Your task to perform on an android device: open chrome and create a bookmark for the current page Image 0: 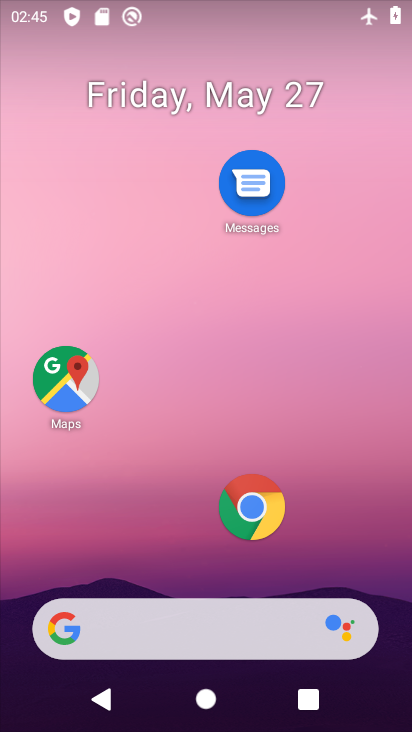
Step 0: drag from (186, 528) to (184, 201)
Your task to perform on an android device: open chrome and create a bookmark for the current page Image 1: 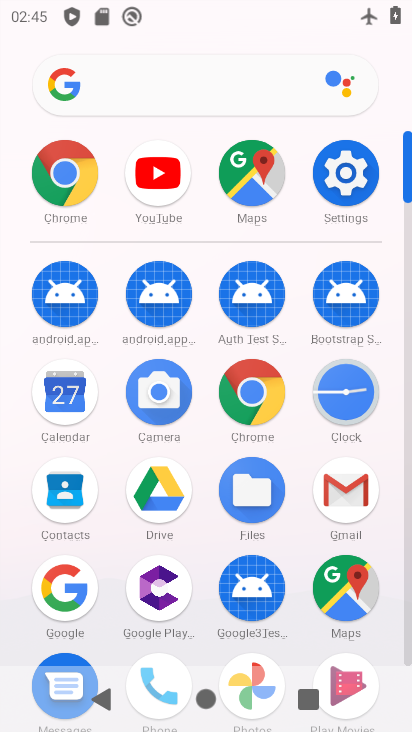
Step 1: drag from (206, 552) to (191, 78)
Your task to perform on an android device: open chrome and create a bookmark for the current page Image 2: 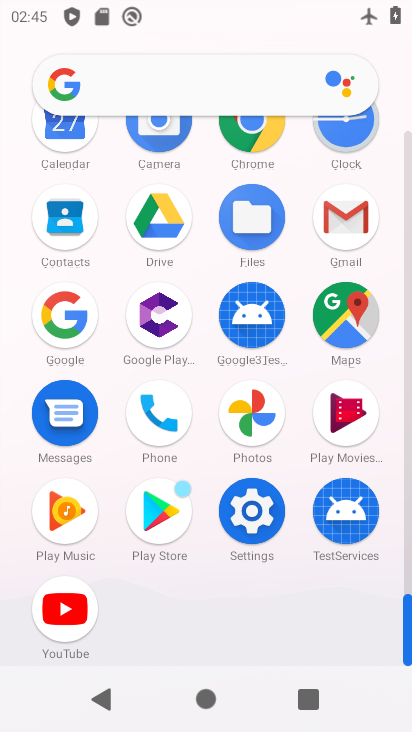
Step 2: drag from (188, 577) to (174, 188)
Your task to perform on an android device: open chrome and create a bookmark for the current page Image 3: 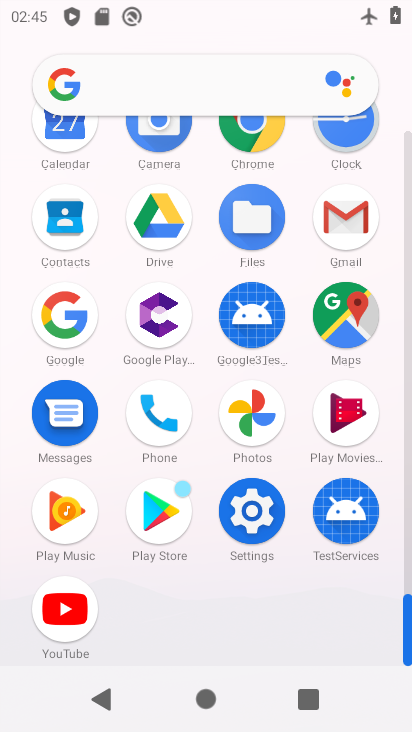
Step 3: drag from (198, 579) to (197, 217)
Your task to perform on an android device: open chrome and create a bookmark for the current page Image 4: 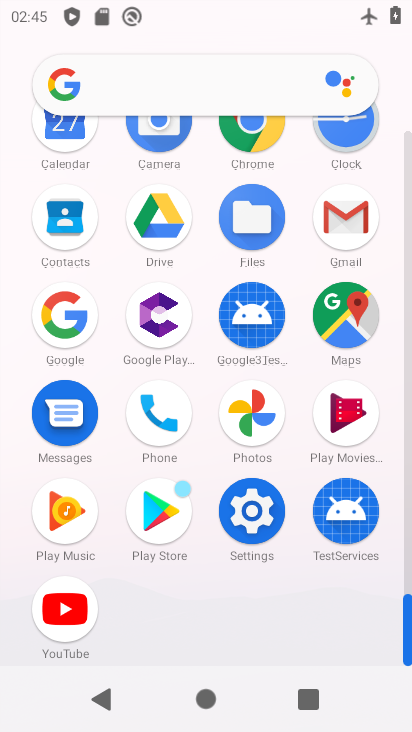
Step 4: click (260, 122)
Your task to perform on an android device: open chrome and create a bookmark for the current page Image 5: 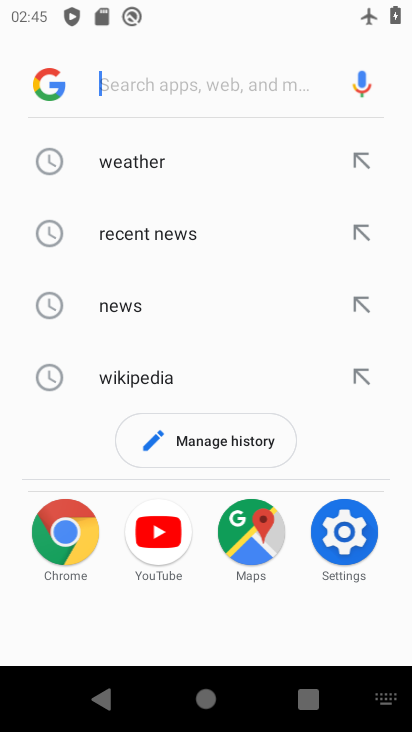
Step 5: drag from (208, 380) to (232, 127)
Your task to perform on an android device: open chrome and create a bookmark for the current page Image 6: 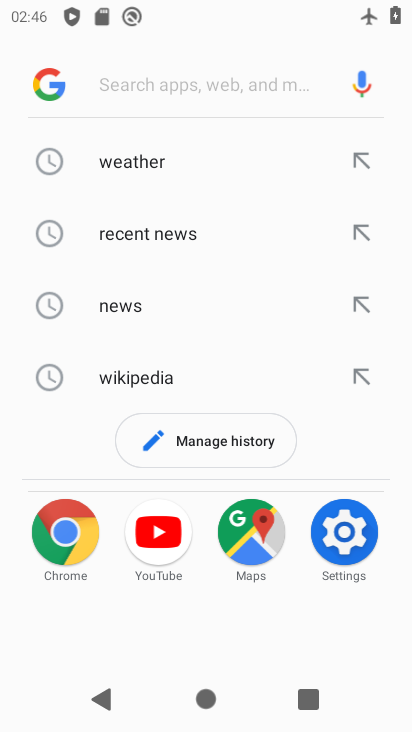
Step 6: click (62, 528)
Your task to perform on an android device: open chrome and create a bookmark for the current page Image 7: 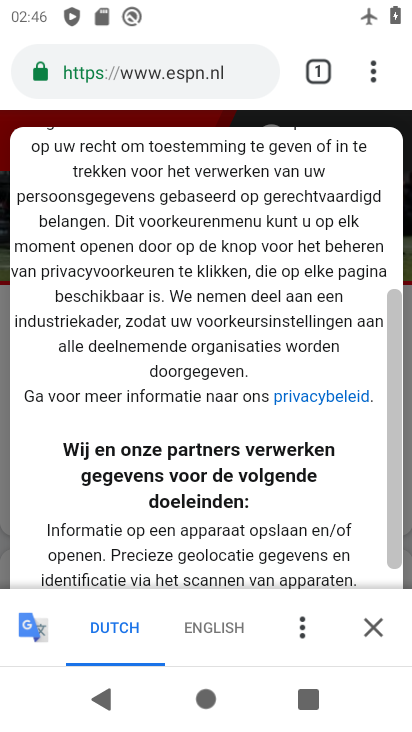
Step 7: drag from (241, 529) to (235, 103)
Your task to perform on an android device: open chrome and create a bookmark for the current page Image 8: 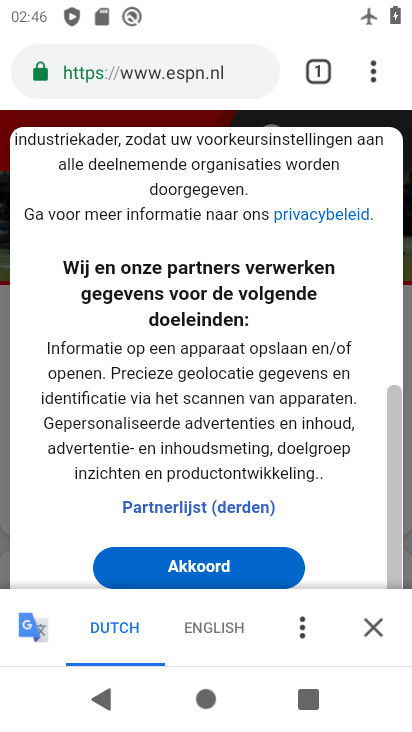
Step 8: drag from (215, 411) to (230, 215)
Your task to perform on an android device: open chrome and create a bookmark for the current page Image 9: 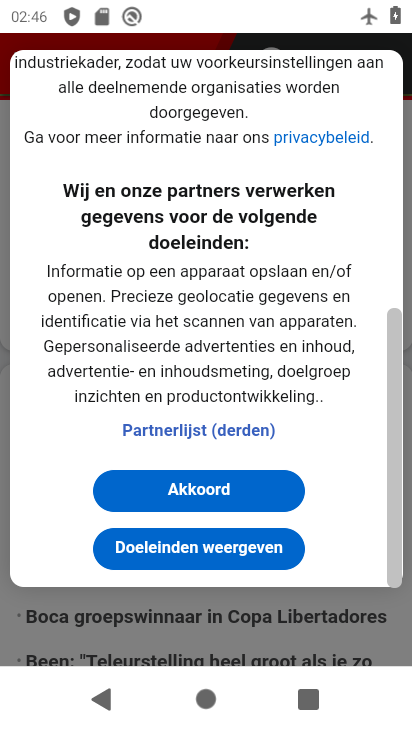
Step 9: drag from (264, 310) to (290, 59)
Your task to perform on an android device: open chrome and create a bookmark for the current page Image 10: 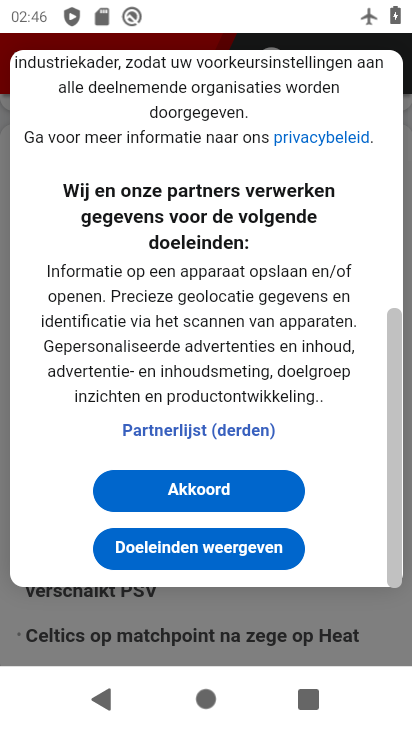
Step 10: drag from (208, 153) to (236, 459)
Your task to perform on an android device: open chrome and create a bookmark for the current page Image 11: 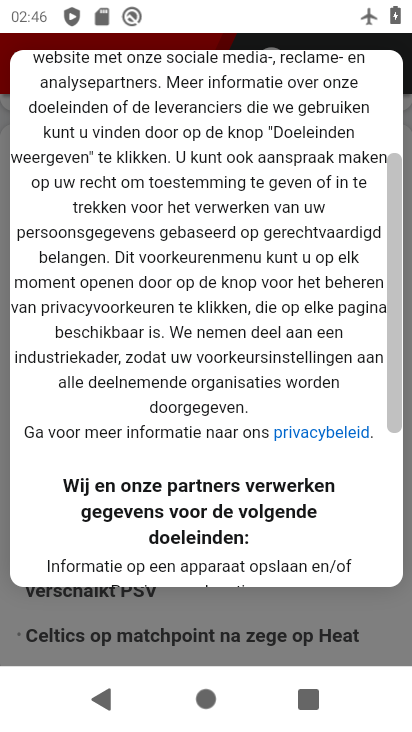
Step 11: drag from (244, 479) to (248, 105)
Your task to perform on an android device: open chrome and create a bookmark for the current page Image 12: 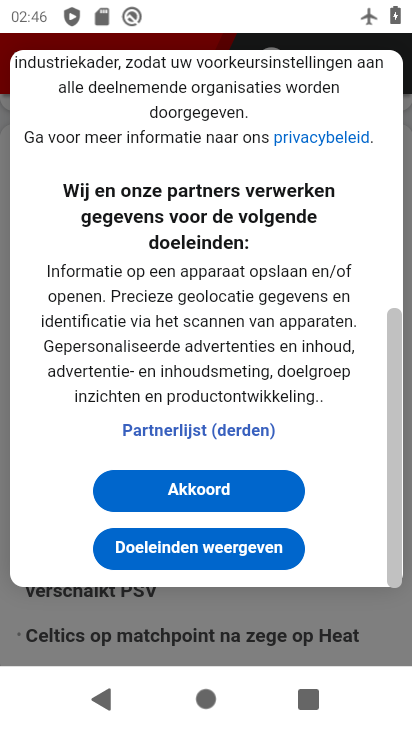
Step 12: drag from (323, 281) to (411, 173)
Your task to perform on an android device: open chrome and create a bookmark for the current page Image 13: 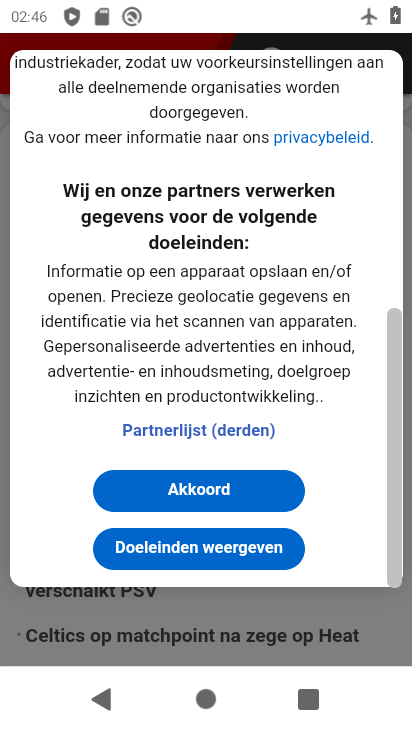
Step 13: drag from (267, 204) to (367, 688)
Your task to perform on an android device: open chrome and create a bookmark for the current page Image 14: 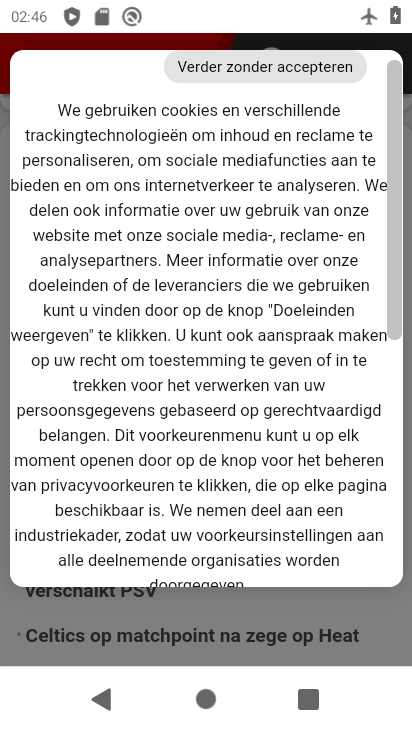
Step 14: drag from (317, 601) to (411, 457)
Your task to perform on an android device: open chrome and create a bookmark for the current page Image 15: 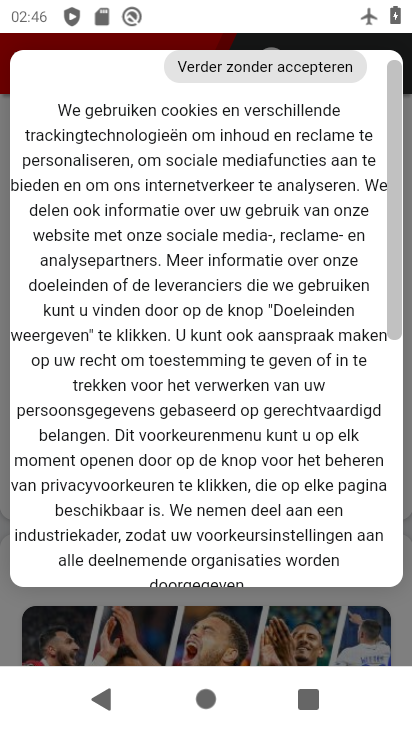
Step 15: drag from (335, 43) to (384, 690)
Your task to perform on an android device: open chrome and create a bookmark for the current page Image 16: 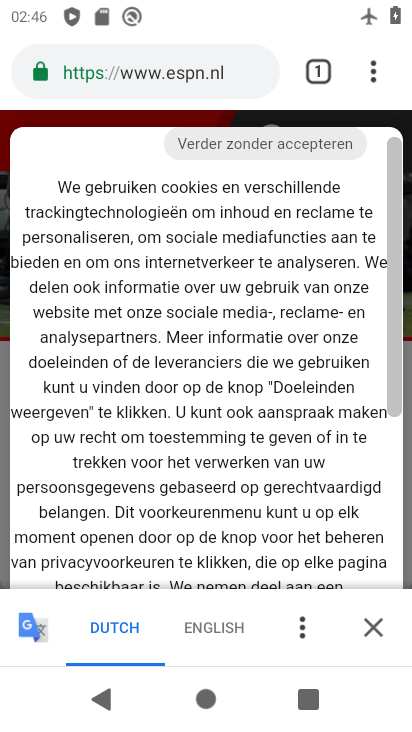
Step 16: drag from (374, 62) to (108, 505)
Your task to perform on an android device: open chrome and create a bookmark for the current page Image 17: 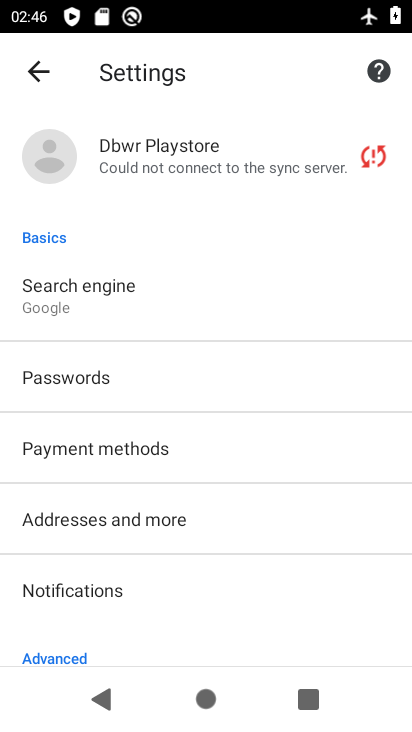
Step 17: drag from (183, 574) to (229, 154)
Your task to perform on an android device: open chrome and create a bookmark for the current page Image 18: 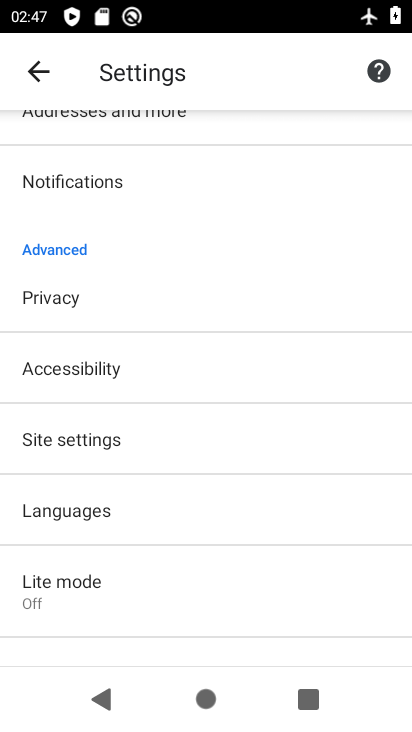
Step 18: drag from (127, 516) to (227, 95)
Your task to perform on an android device: open chrome and create a bookmark for the current page Image 19: 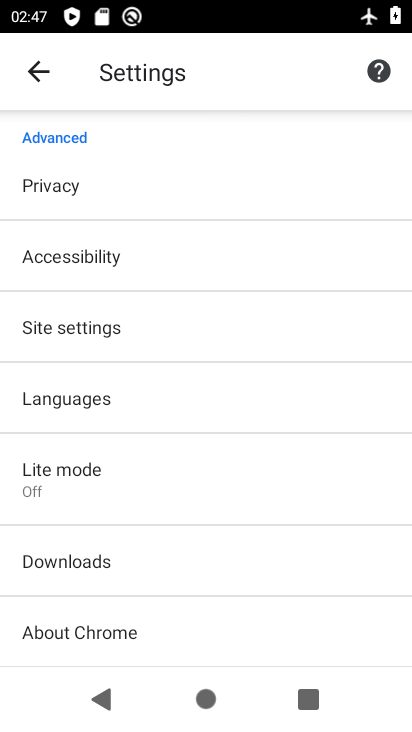
Step 19: drag from (149, 226) to (319, 703)
Your task to perform on an android device: open chrome and create a bookmark for the current page Image 20: 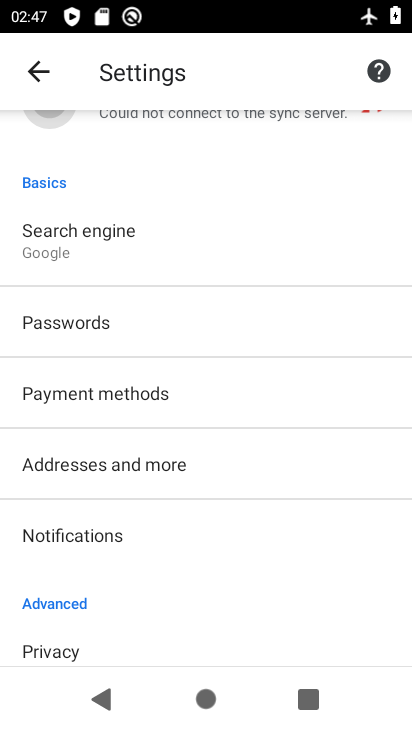
Step 20: click (38, 58)
Your task to perform on an android device: open chrome and create a bookmark for the current page Image 21: 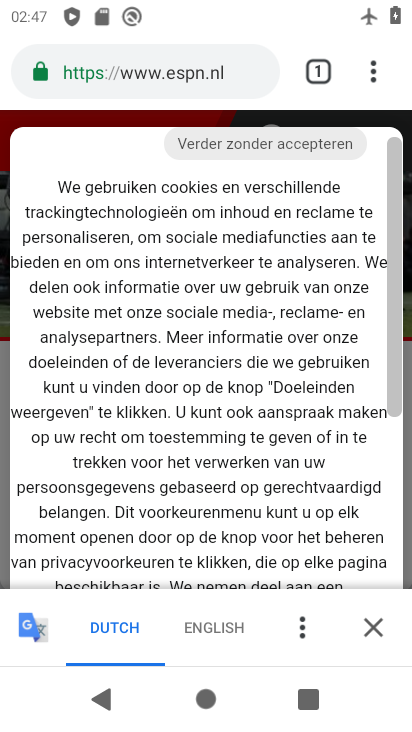
Step 21: task complete